Your task to perform on an android device: Open battery settings Image 0: 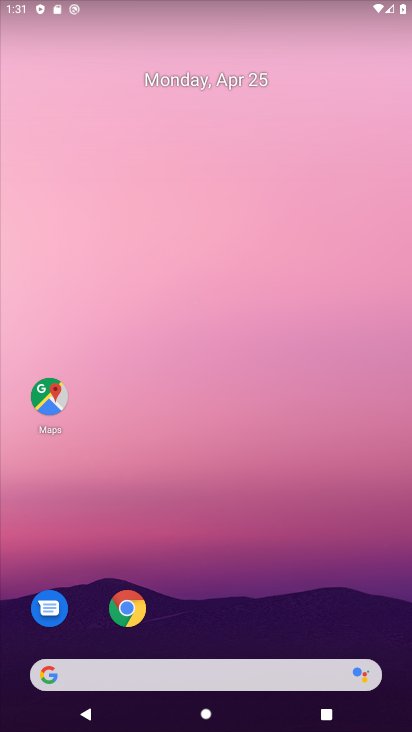
Step 0: drag from (371, 610) to (347, 160)
Your task to perform on an android device: Open battery settings Image 1: 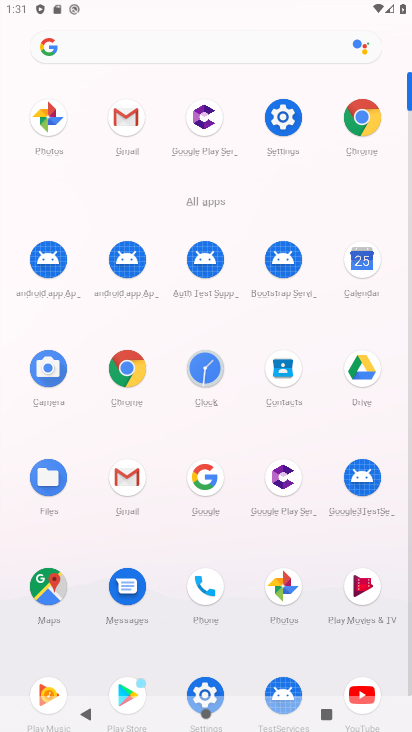
Step 1: click (282, 125)
Your task to perform on an android device: Open battery settings Image 2: 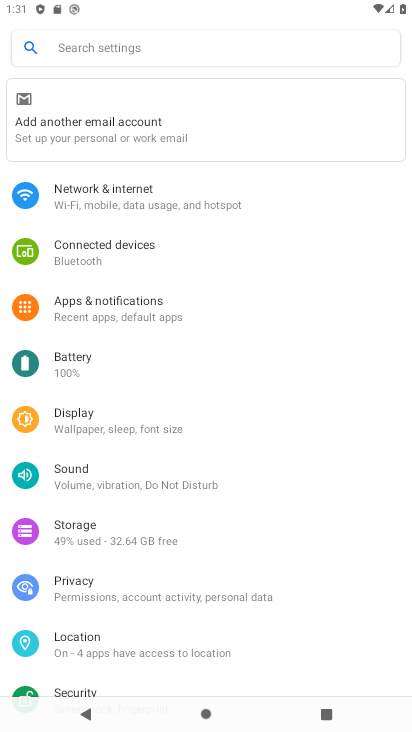
Step 2: drag from (329, 614) to (333, 409)
Your task to perform on an android device: Open battery settings Image 3: 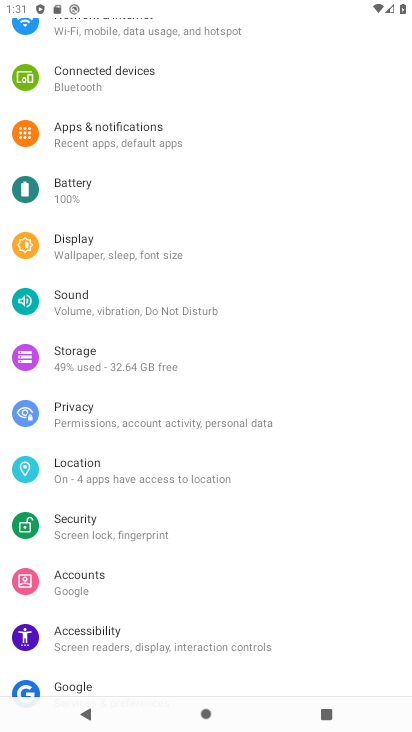
Step 3: drag from (324, 580) to (335, 381)
Your task to perform on an android device: Open battery settings Image 4: 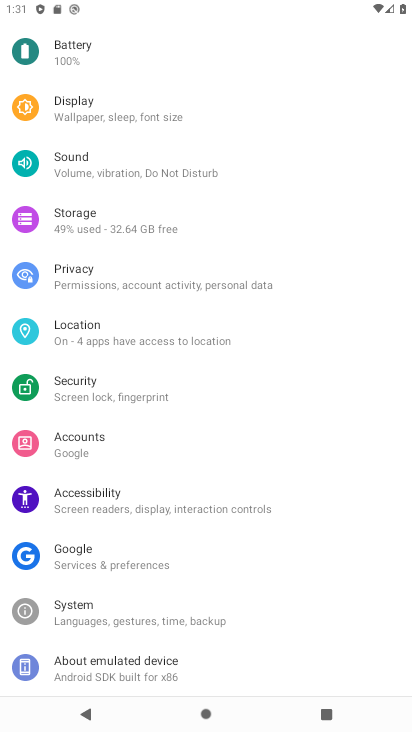
Step 4: drag from (316, 638) to (326, 434)
Your task to perform on an android device: Open battery settings Image 5: 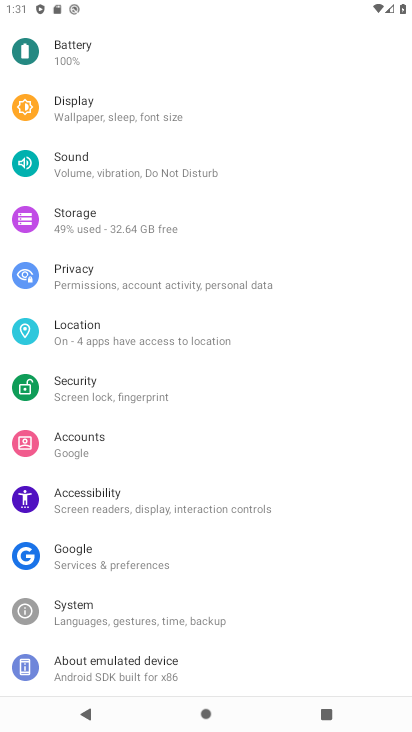
Step 5: click (86, 41)
Your task to perform on an android device: Open battery settings Image 6: 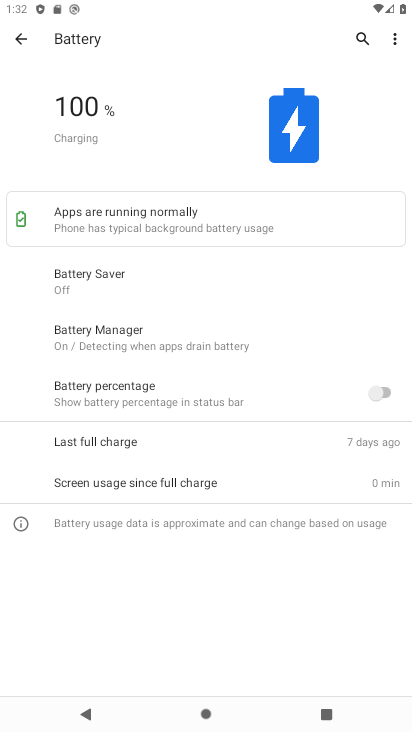
Step 6: task complete